Your task to perform on an android device: move an email to a new category in the gmail app Image 0: 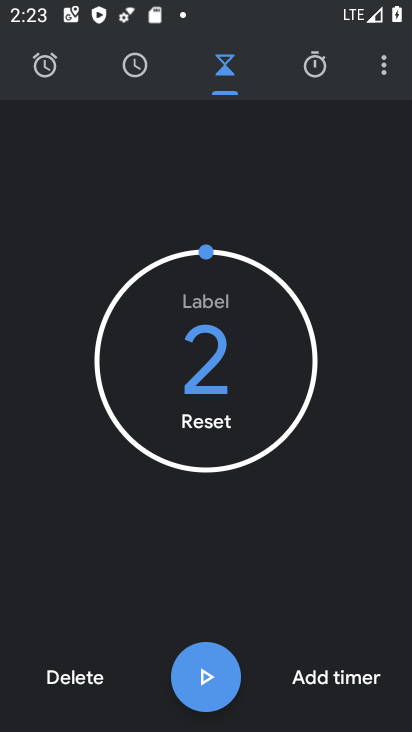
Step 0: press home button
Your task to perform on an android device: move an email to a new category in the gmail app Image 1: 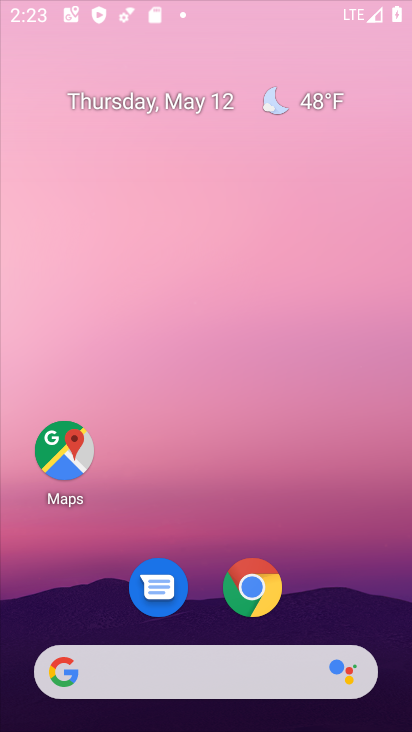
Step 1: drag from (245, 618) to (248, 122)
Your task to perform on an android device: move an email to a new category in the gmail app Image 2: 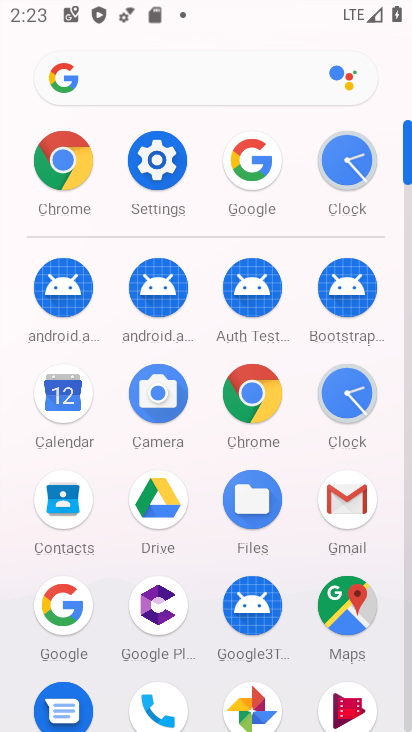
Step 2: click (354, 518)
Your task to perform on an android device: move an email to a new category in the gmail app Image 3: 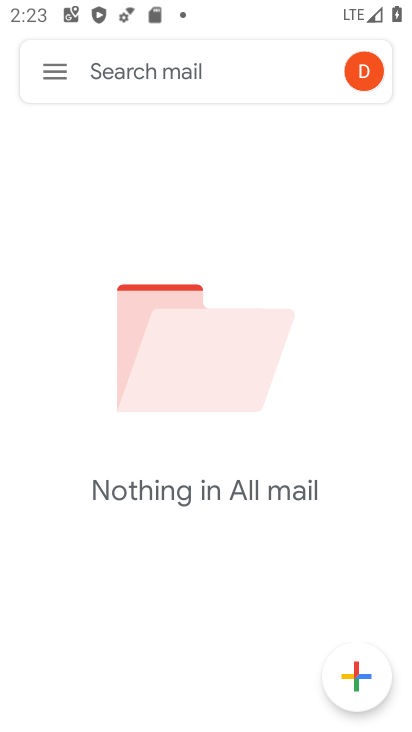
Step 3: click (49, 79)
Your task to perform on an android device: move an email to a new category in the gmail app Image 4: 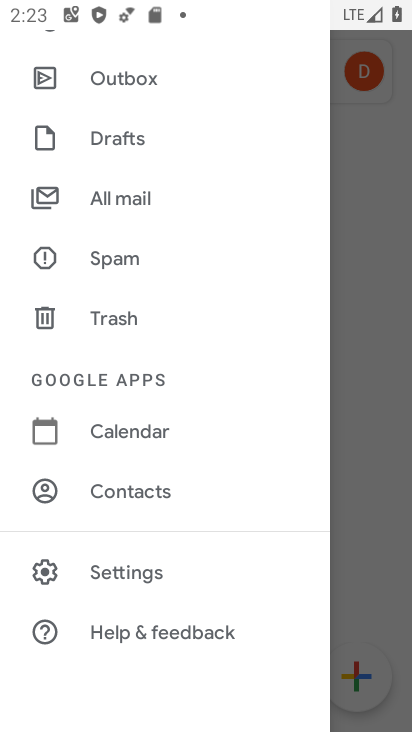
Step 4: click (125, 196)
Your task to perform on an android device: move an email to a new category in the gmail app Image 5: 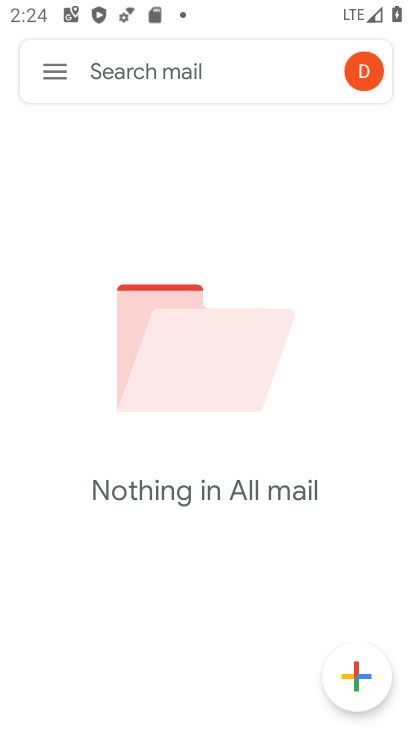
Step 5: task complete